Your task to perform on an android device: turn off location Image 0: 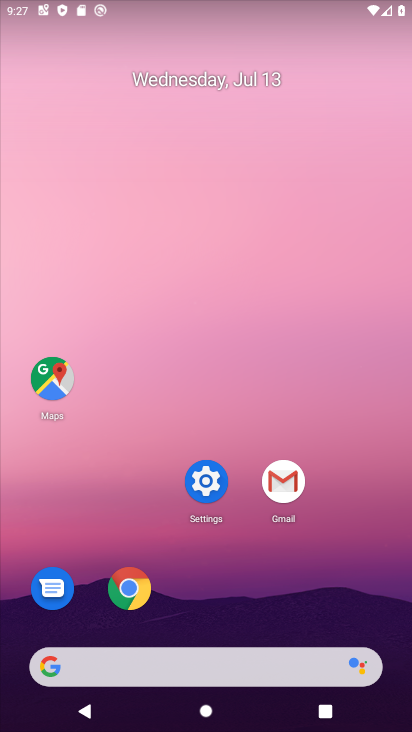
Step 0: click (214, 492)
Your task to perform on an android device: turn off location Image 1: 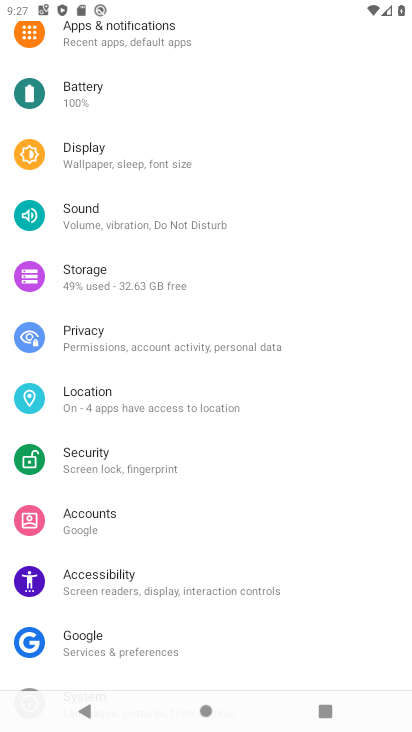
Step 1: click (84, 390)
Your task to perform on an android device: turn off location Image 2: 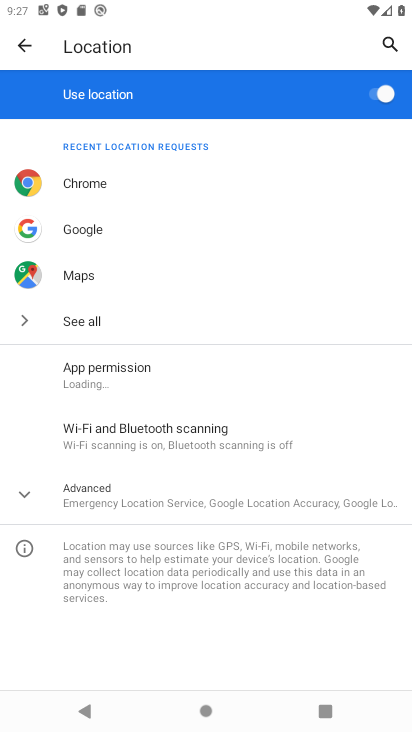
Step 2: click (378, 94)
Your task to perform on an android device: turn off location Image 3: 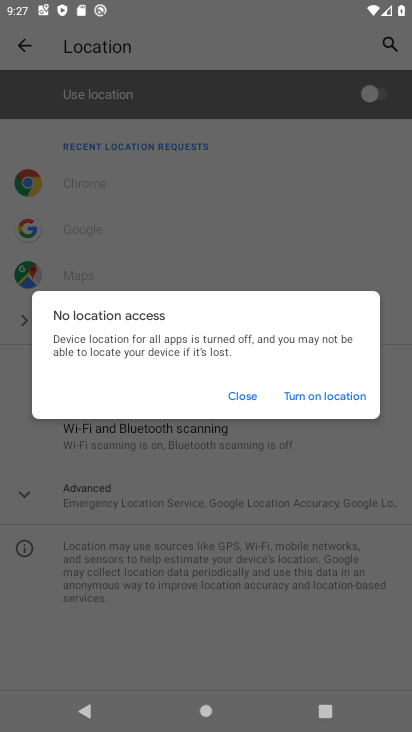
Step 3: task complete